Your task to perform on an android device: toggle show notifications on the lock screen Image 0: 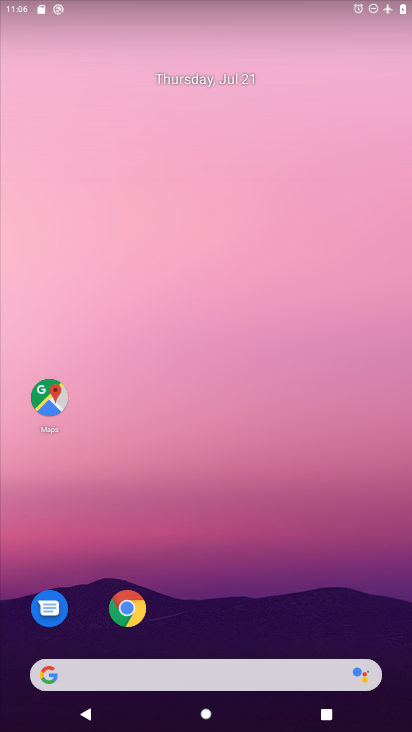
Step 0: drag from (375, 627) to (173, 100)
Your task to perform on an android device: toggle show notifications on the lock screen Image 1: 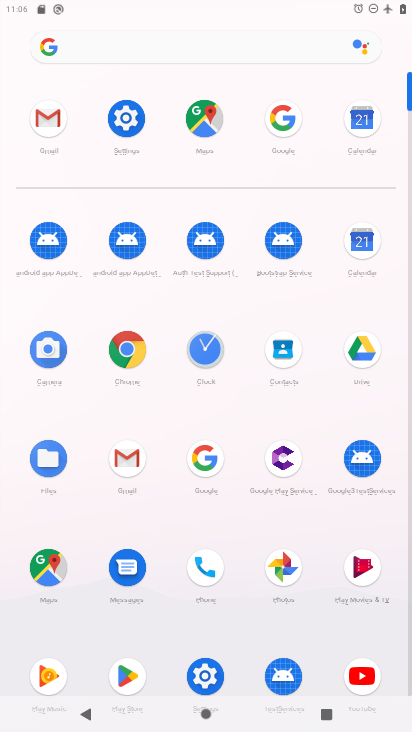
Step 1: click (128, 128)
Your task to perform on an android device: toggle show notifications on the lock screen Image 2: 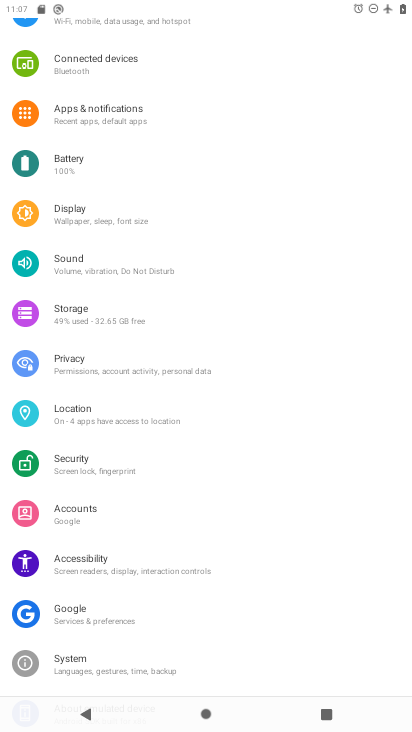
Step 2: click (117, 122)
Your task to perform on an android device: toggle show notifications on the lock screen Image 3: 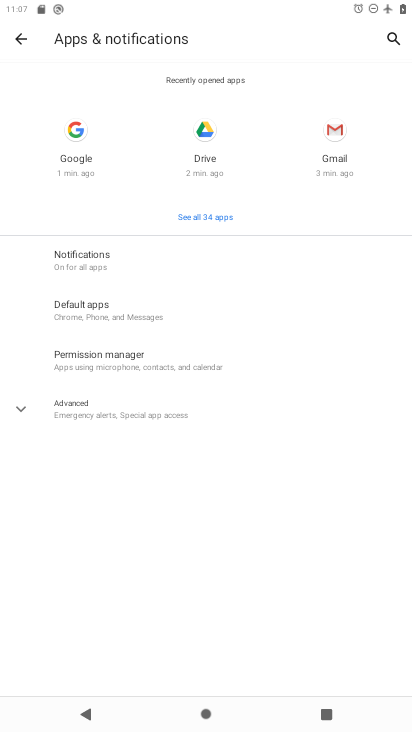
Step 3: click (107, 257)
Your task to perform on an android device: toggle show notifications on the lock screen Image 4: 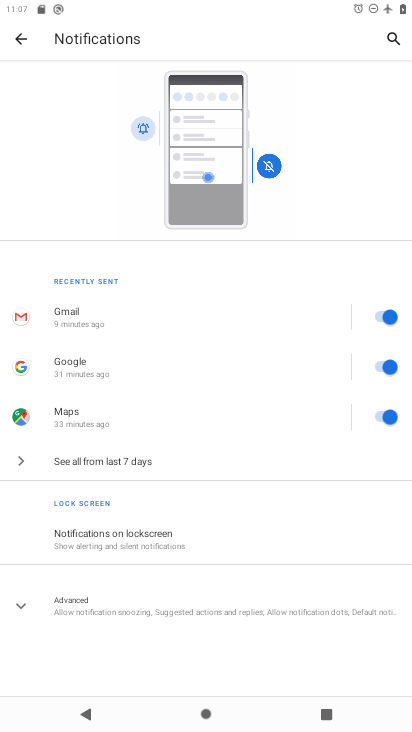
Step 4: click (114, 552)
Your task to perform on an android device: toggle show notifications on the lock screen Image 5: 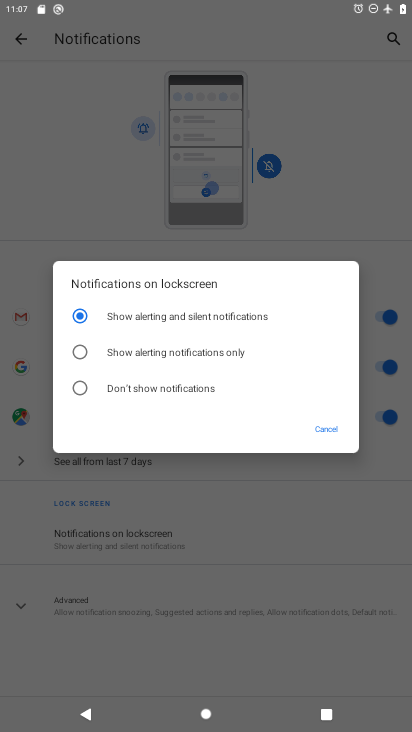
Step 5: click (95, 357)
Your task to perform on an android device: toggle show notifications on the lock screen Image 6: 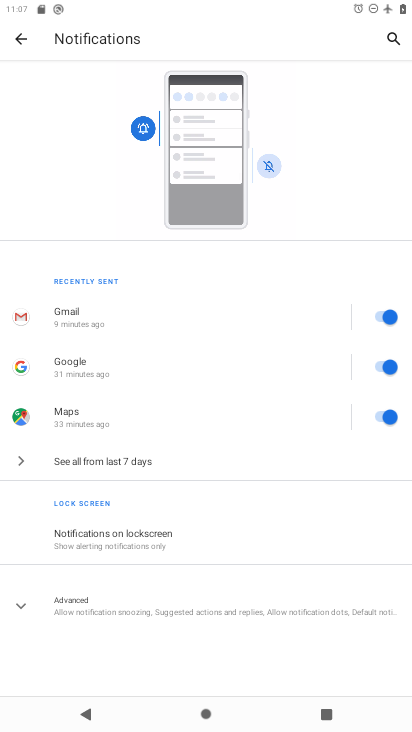
Step 6: task complete